Your task to perform on an android device: open chrome privacy settings Image 0: 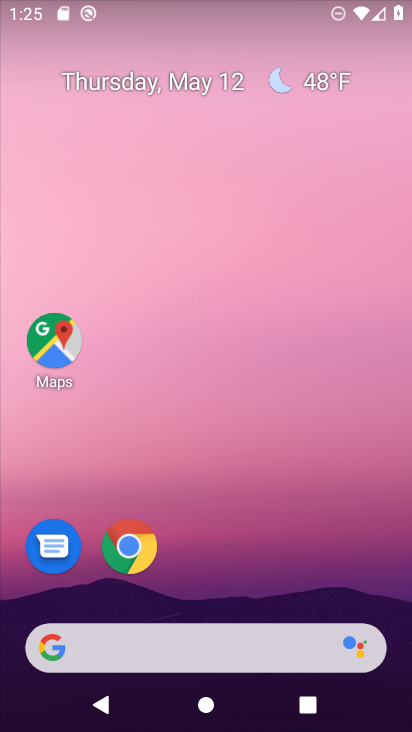
Step 0: drag from (274, 643) to (392, 224)
Your task to perform on an android device: open chrome privacy settings Image 1: 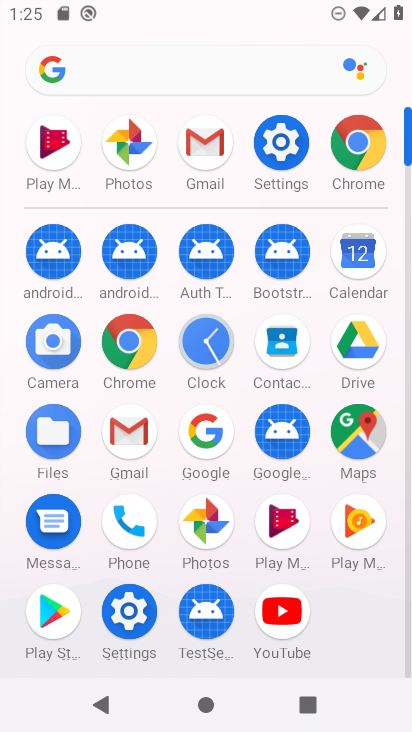
Step 1: click (263, 143)
Your task to perform on an android device: open chrome privacy settings Image 2: 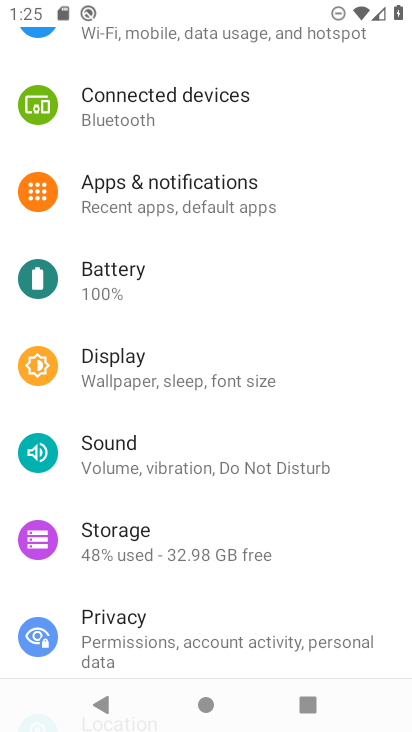
Step 2: press home button
Your task to perform on an android device: open chrome privacy settings Image 3: 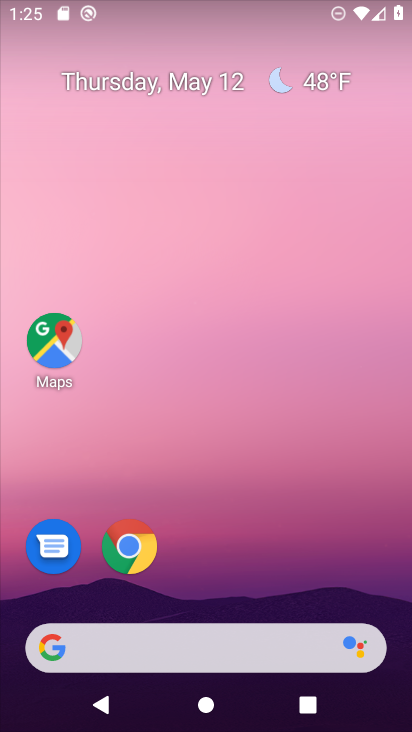
Step 3: drag from (226, 664) to (199, 133)
Your task to perform on an android device: open chrome privacy settings Image 4: 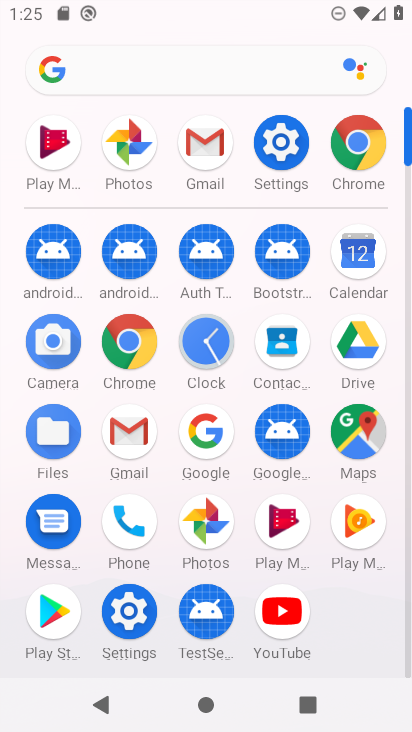
Step 4: click (349, 151)
Your task to perform on an android device: open chrome privacy settings Image 5: 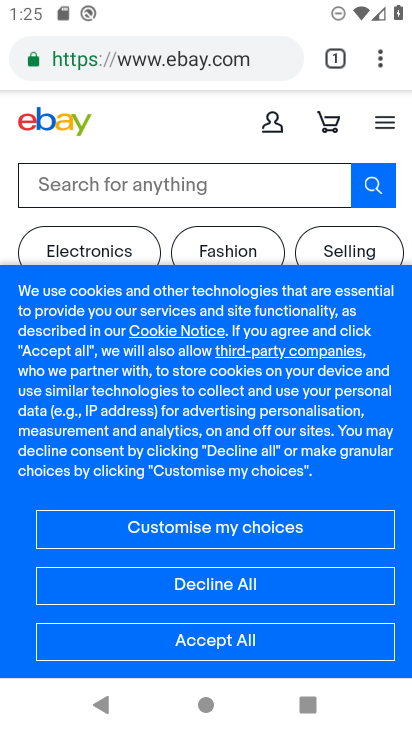
Step 5: click (378, 63)
Your task to perform on an android device: open chrome privacy settings Image 6: 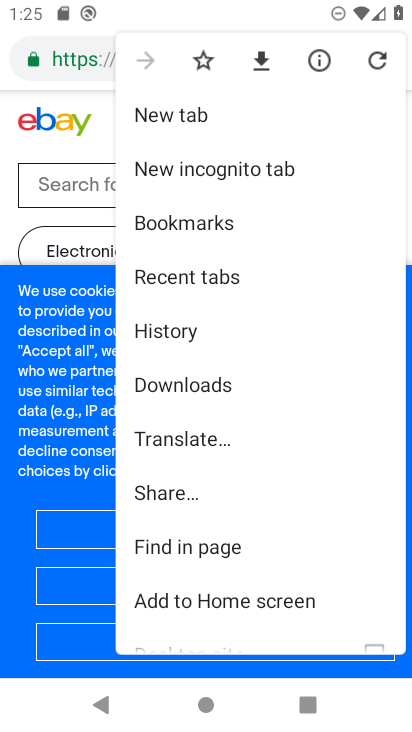
Step 6: drag from (205, 520) to (215, 319)
Your task to perform on an android device: open chrome privacy settings Image 7: 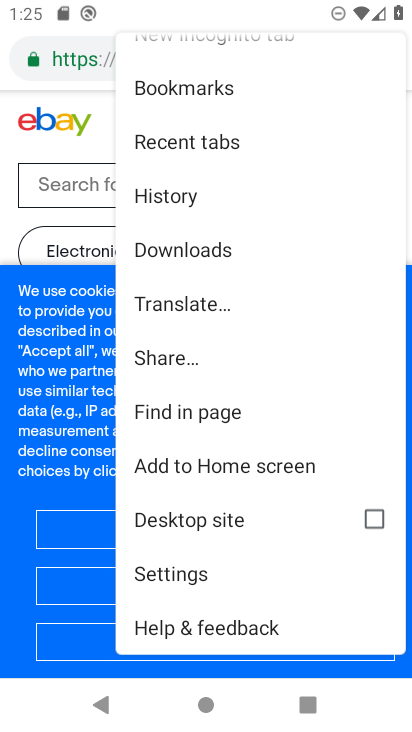
Step 7: click (173, 568)
Your task to perform on an android device: open chrome privacy settings Image 8: 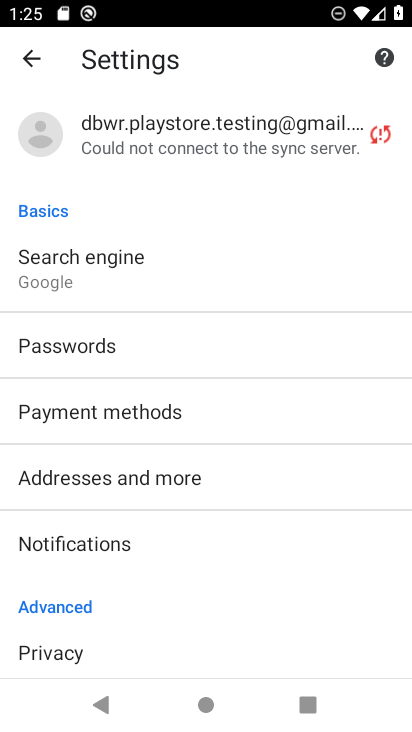
Step 8: click (94, 648)
Your task to perform on an android device: open chrome privacy settings Image 9: 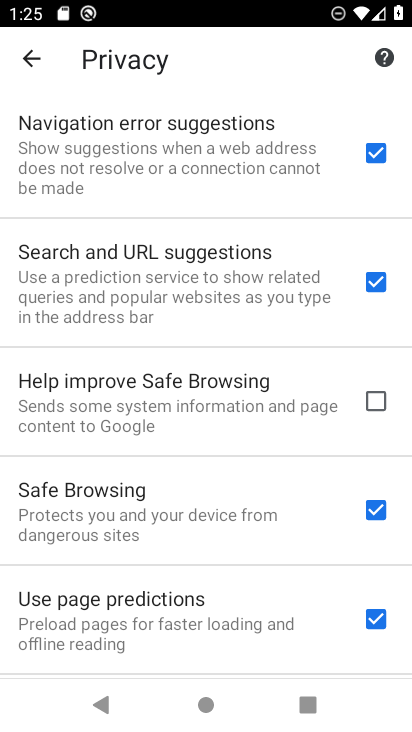
Step 9: task complete